Your task to perform on an android device: Open Reddit.com Image 0: 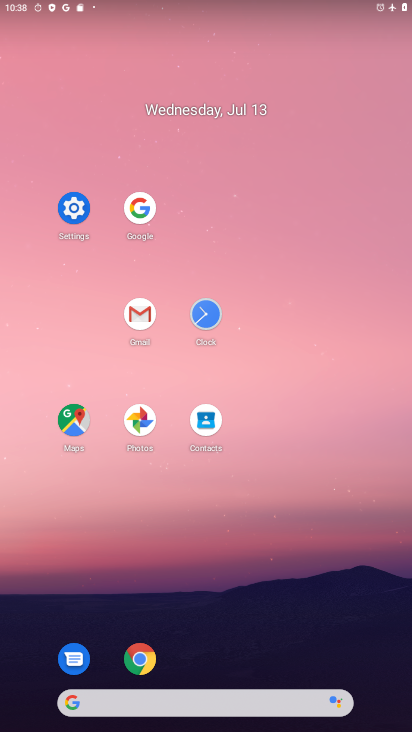
Step 0: click (139, 654)
Your task to perform on an android device: Open Reddit.com Image 1: 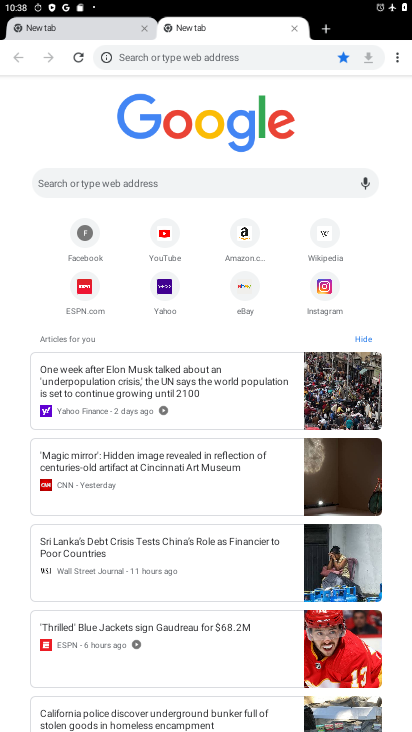
Step 1: click (245, 190)
Your task to perform on an android device: Open Reddit.com Image 2: 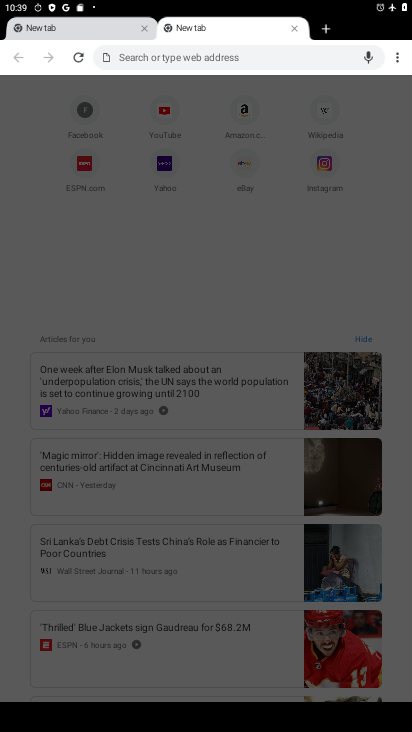
Step 2: type "reddit"
Your task to perform on an android device: Open Reddit.com Image 3: 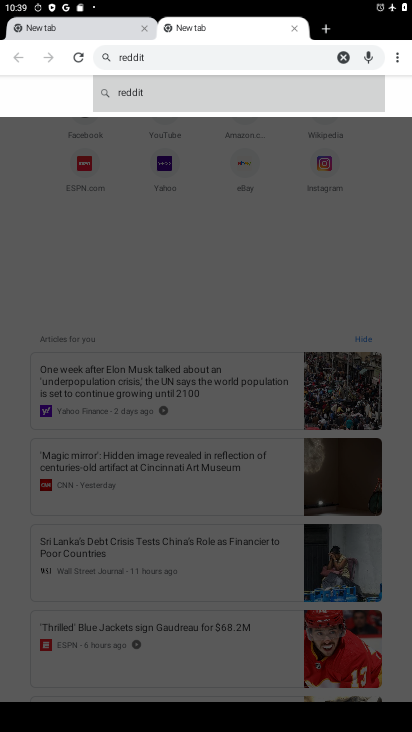
Step 3: click (135, 86)
Your task to perform on an android device: Open Reddit.com Image 4: 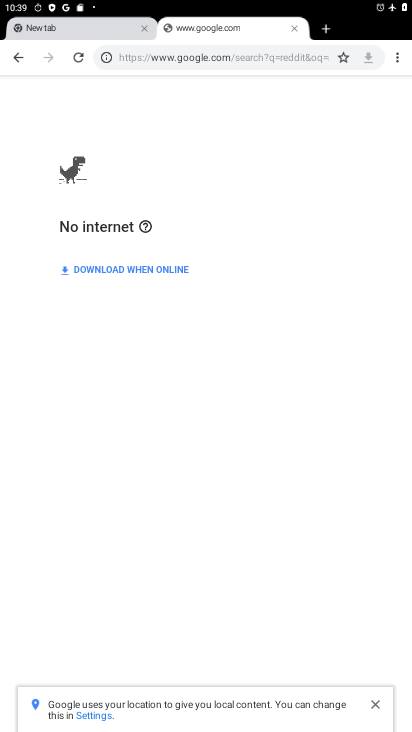
Step 4: task complete